Your task to perform on an android device: Search for Mexican restaurants on Maps Image 0: 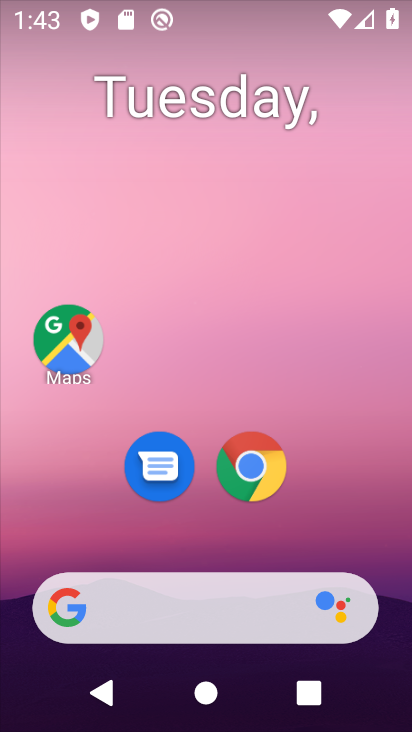
Step 0: click (84, 351)
Your task to perform on an android device: Search for Mexican restaurants on Maps Image 1: 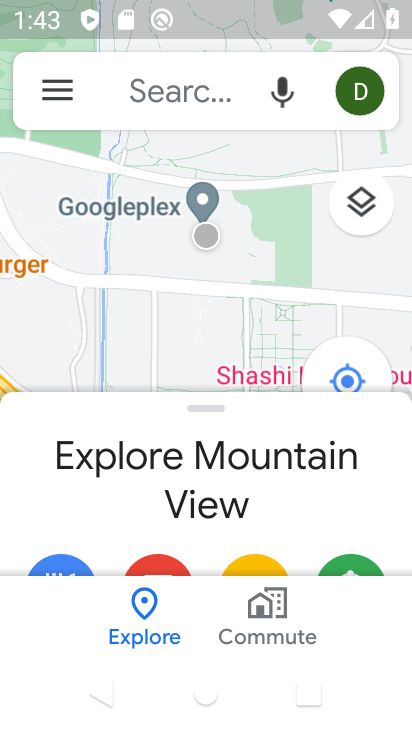
Step 1: click (191, 94)
Your task to perform on an android device: Search for Mexican restaurants on Maps Image 2: 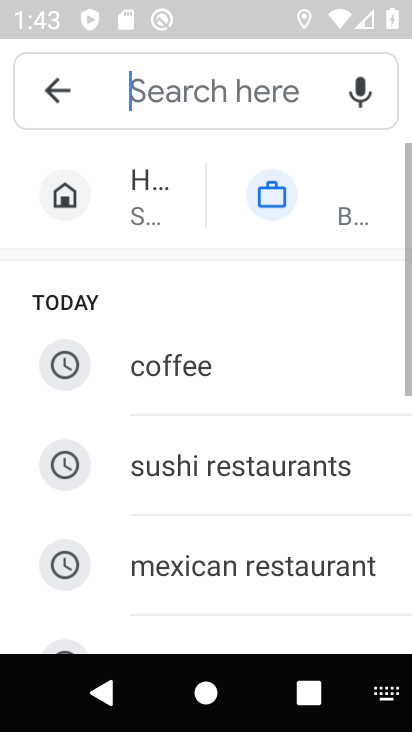
Step 2: click (191, 94)
Your task to perform on an android device: Search for Mexican restaurants on Maps Image 3: 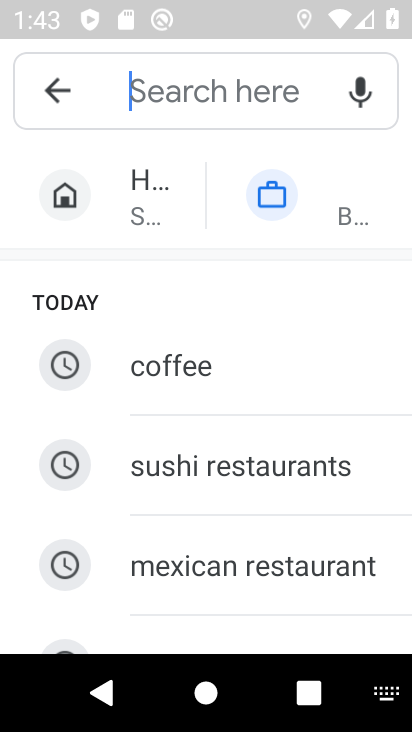
Step 3: click (194, 547)
Your task to perform on an android device: Search for Mexican restaurants on Maps Image 4: 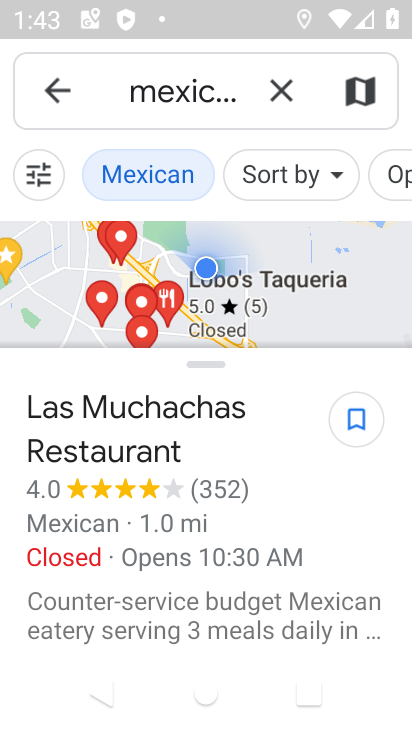
Step 4: task complete